Your task to perform on an android device: Open sound settings Image 0: 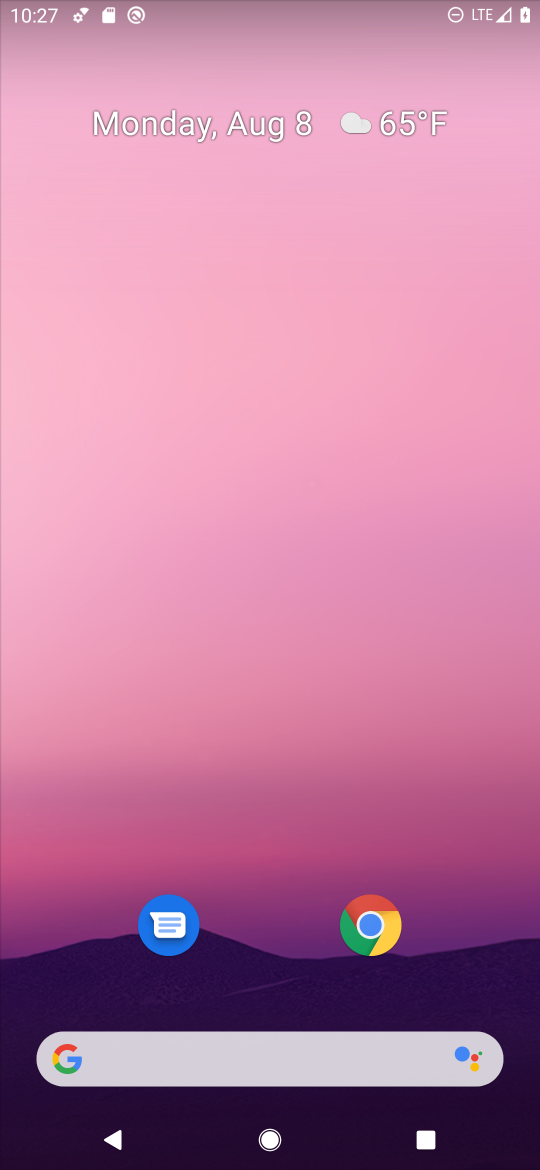
Step 0: drag from (293, 760) to (332, 245)
Your task to perform on an android device: Open sound settings Image 1: 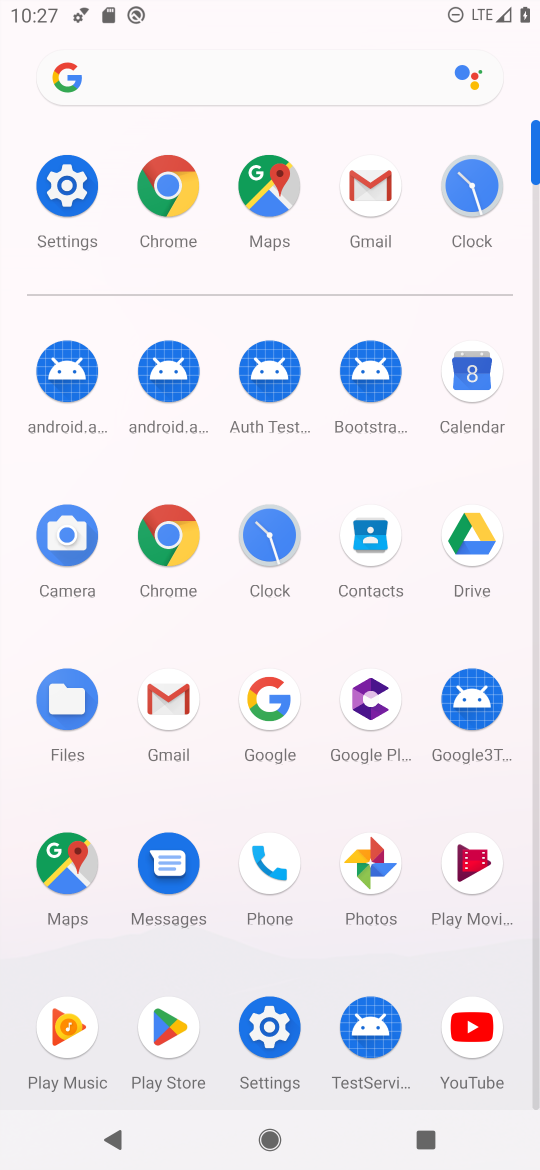
Step 1: click (273, 1031)
Your task to perform on an android device: Open sound settings Image 2: 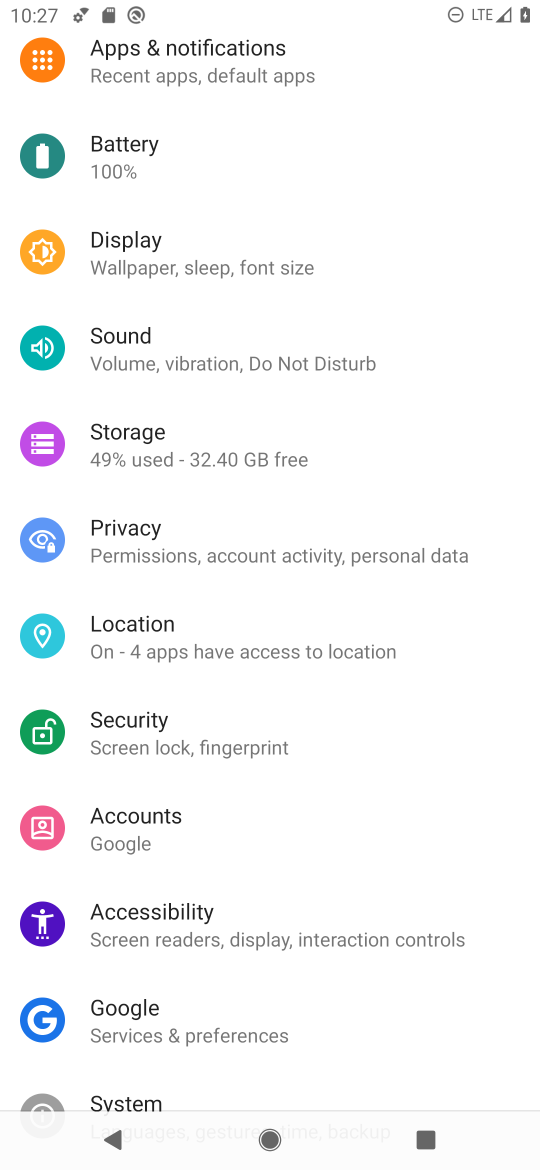
Step 2: click (182, 347)
Your task to perform on an android device: Open sound settings Image 3: 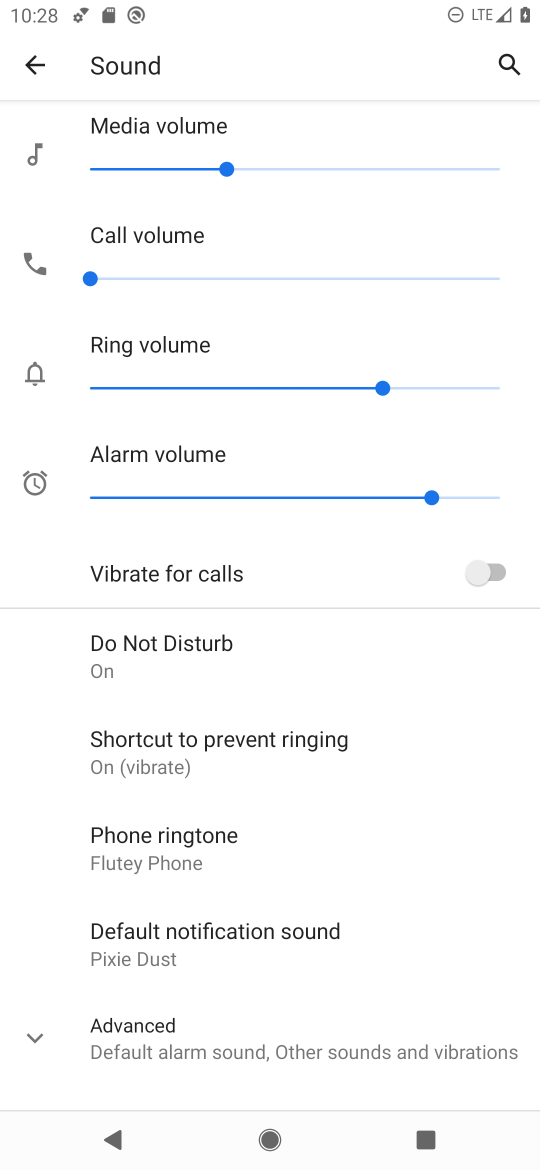
Step 3: task complete